Your task to perform on an android device: turn pop-ups off in chrome Image 0: 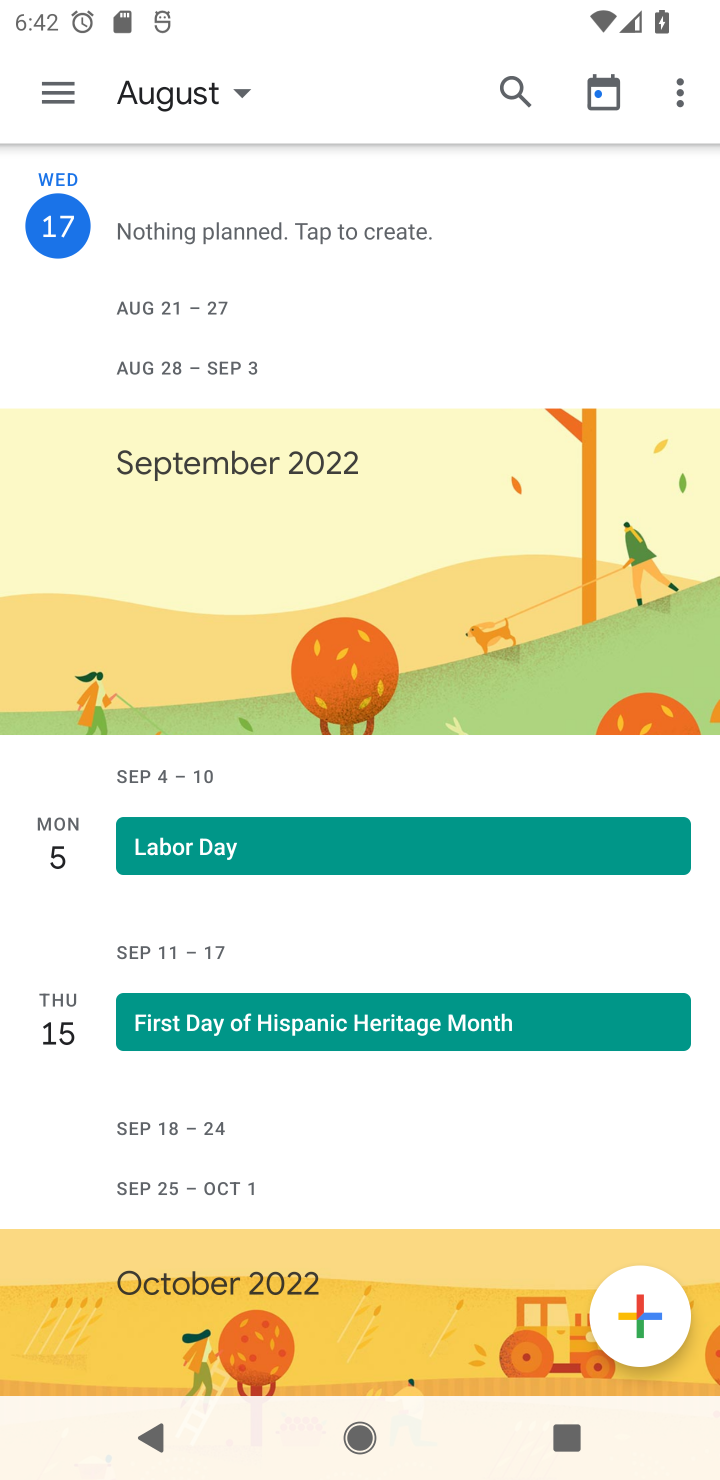
Step 0: press home button
Your task to perform on an android device: turn pop-ups off in chrome Image 1: 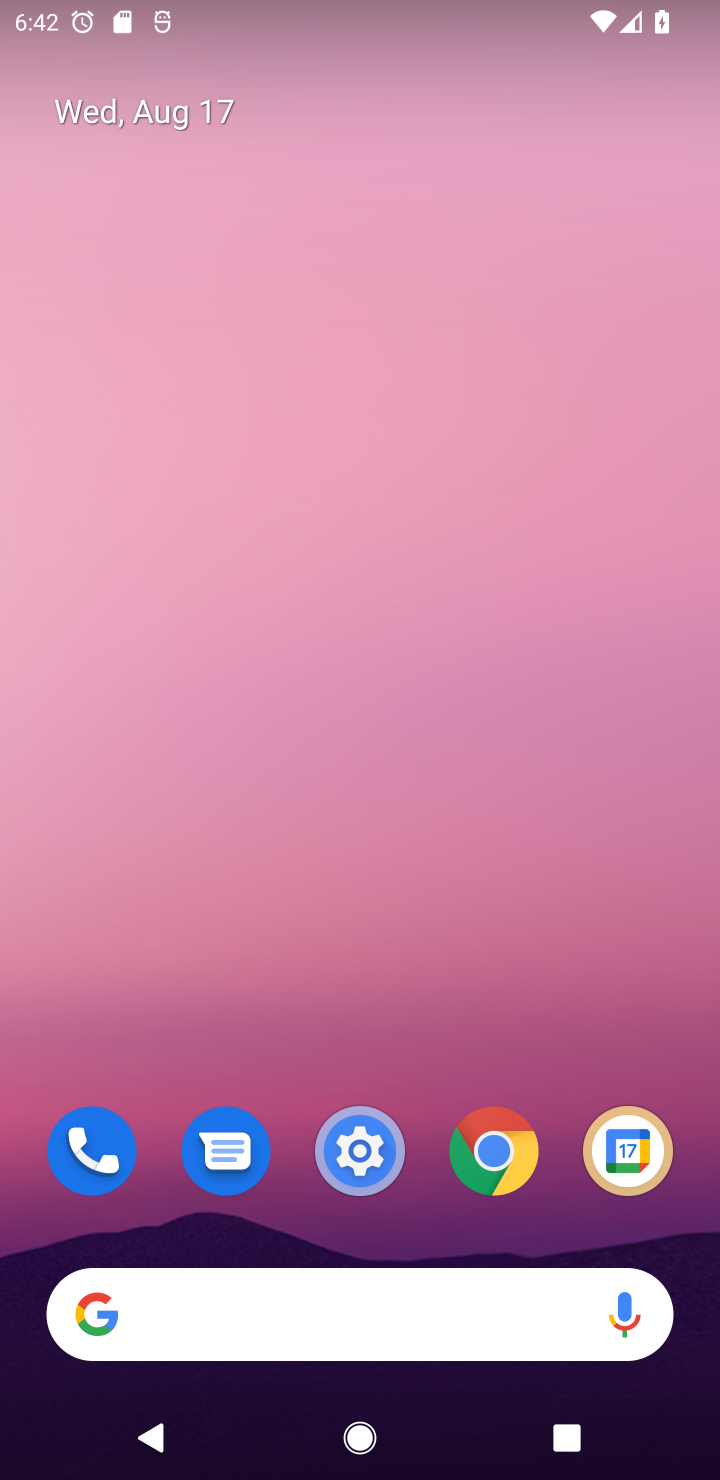
Step 1: drag from (435, 1270) to (341, 150)
Your task to perform on an android device: turn pop-ups off in chrome Image 2: 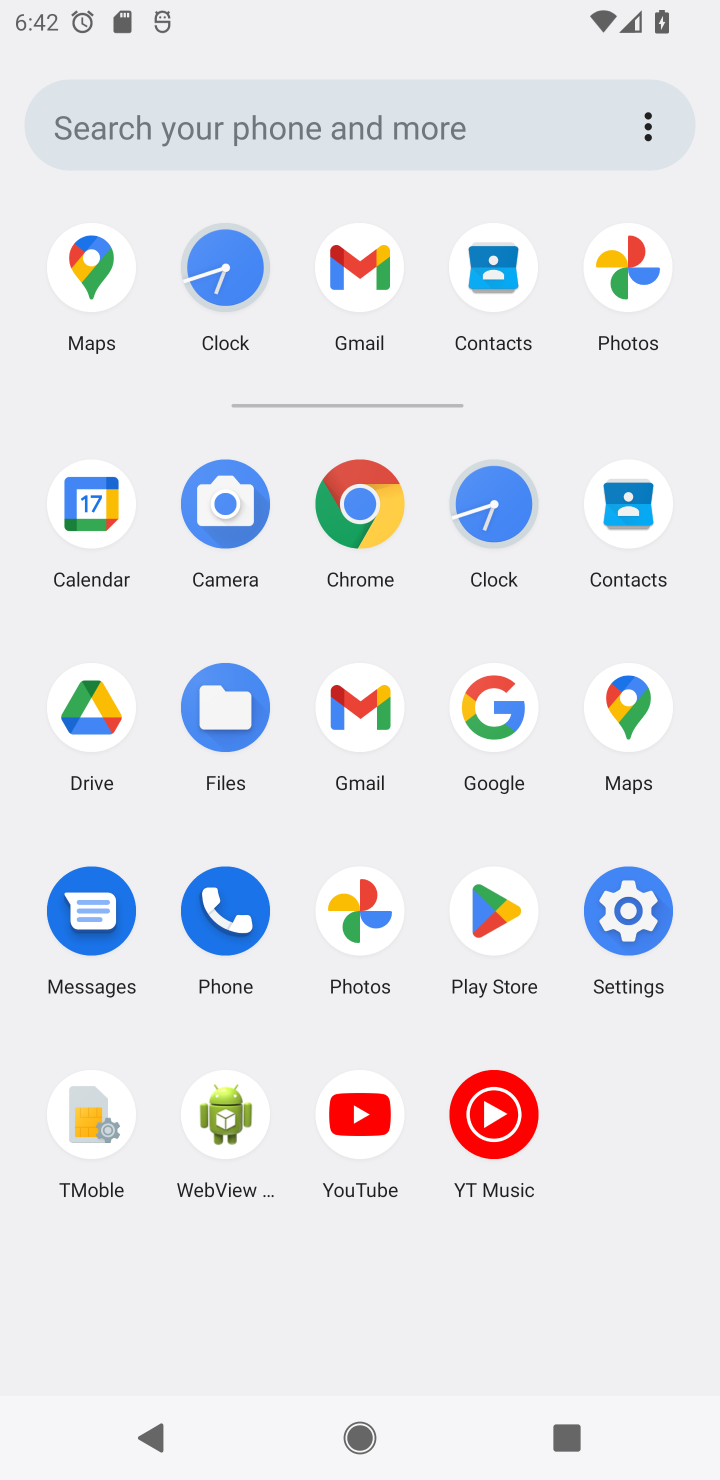
Step 2: click (380, 508)
Your task to perform on an android device: turn pop-ups off in chrome Image 3: 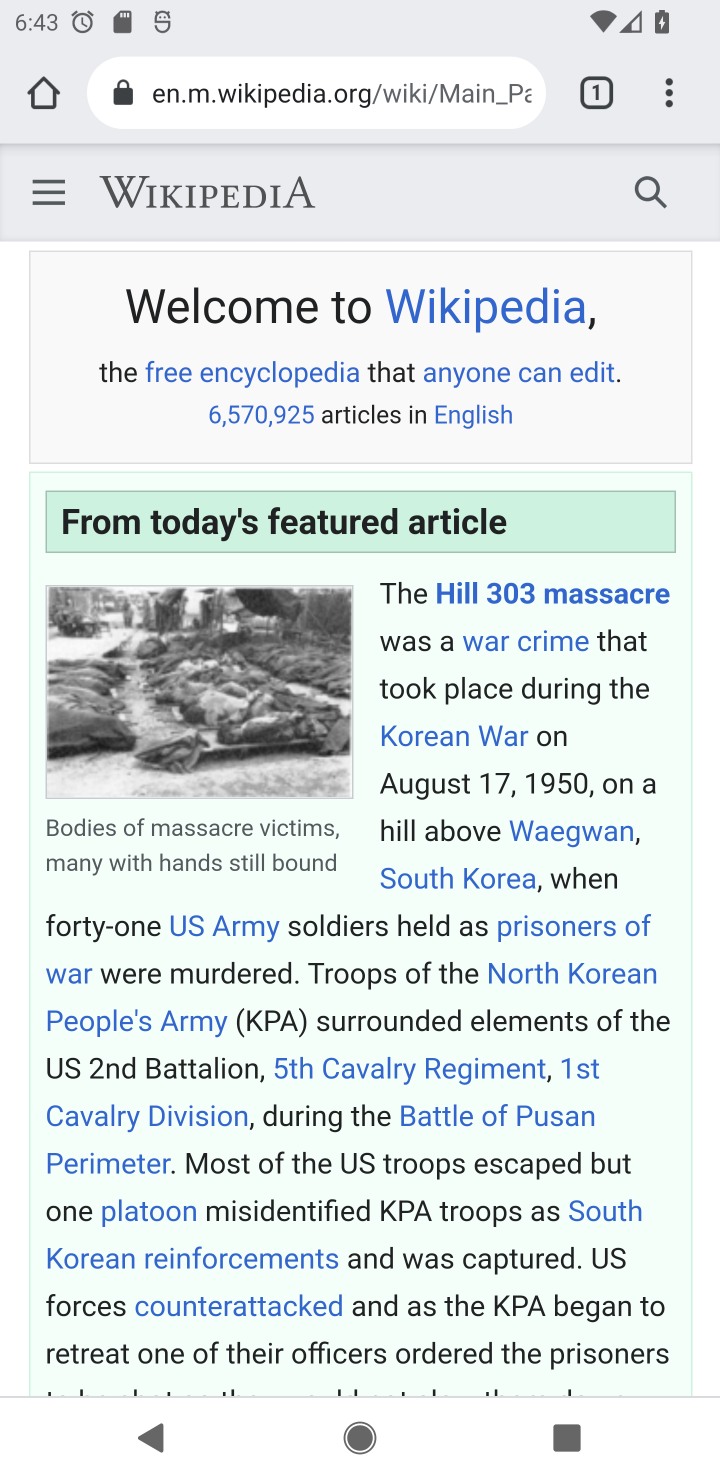
Step 3: click (664, 81)
Your task to perform on an android device: turn pop-ups off in chrome Image 4: 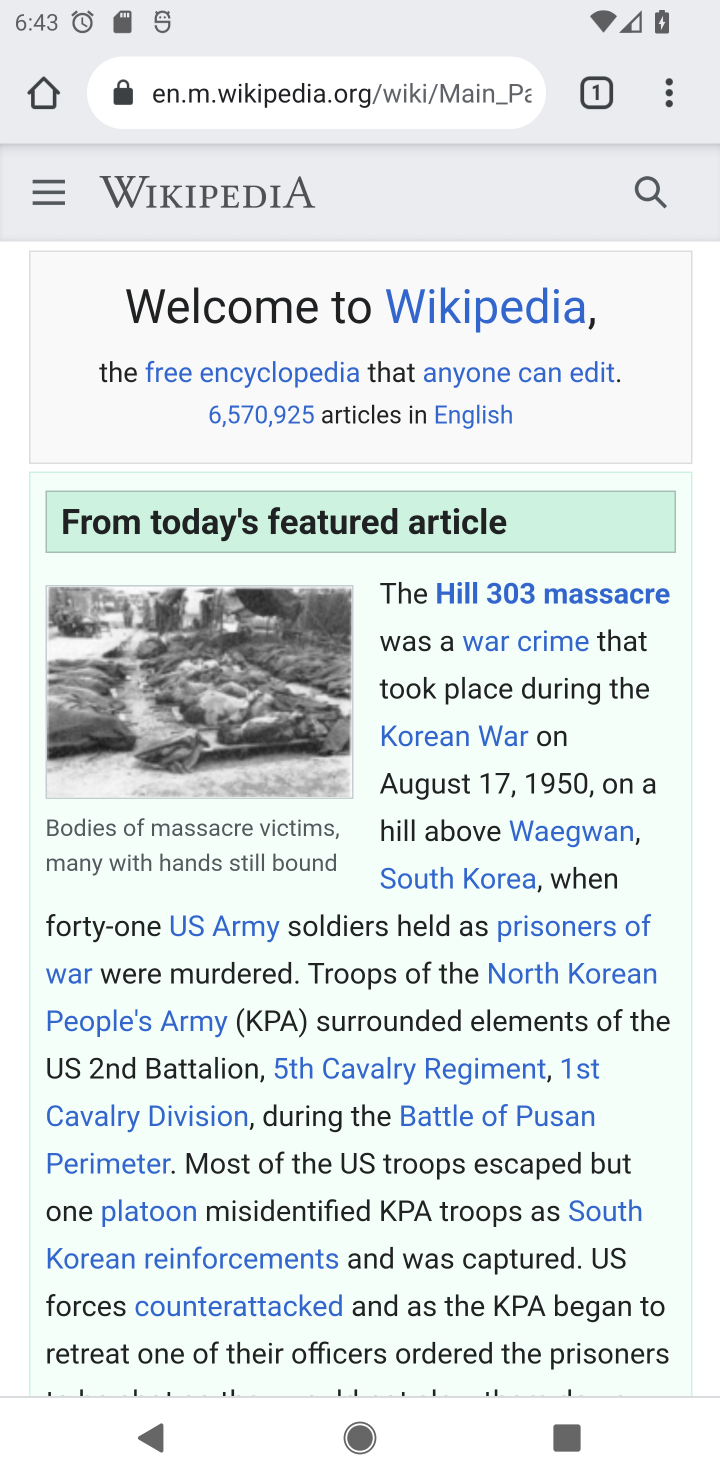
Step 4: task complete